Your task to perform on an android device: Check the weather Image 0: 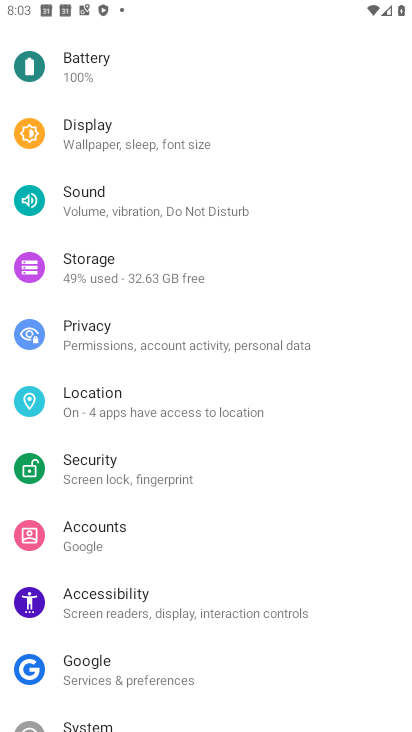
Step 0: press home button
Your task to perform on an android device: Check the weather Image 1: 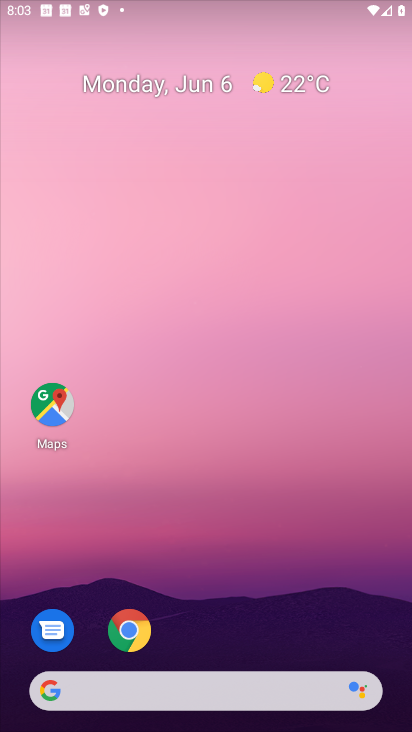
Step 1: click (142, 693)
Your task to perform on an android device: Check the weather Image 2: 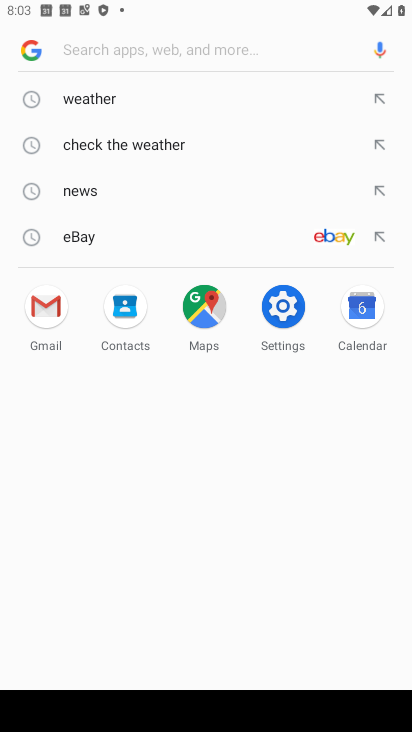
Step 2: click (177, 86)
Your task to perform on an android device: Check the weather Image 3: 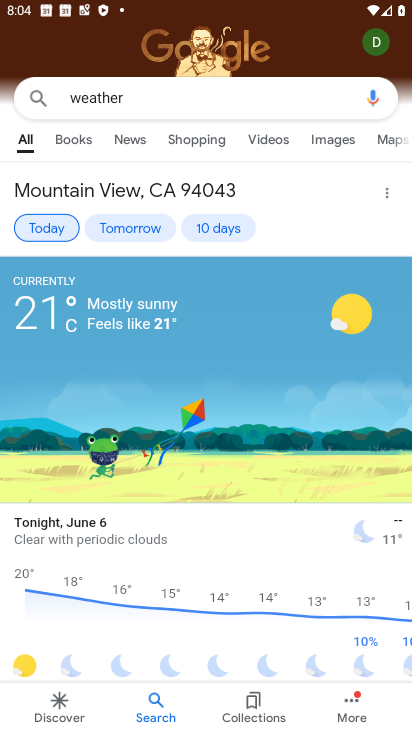
Step 3: task complete